Your task to perform on an android device: Show me popular videos on Youtube Image 0: 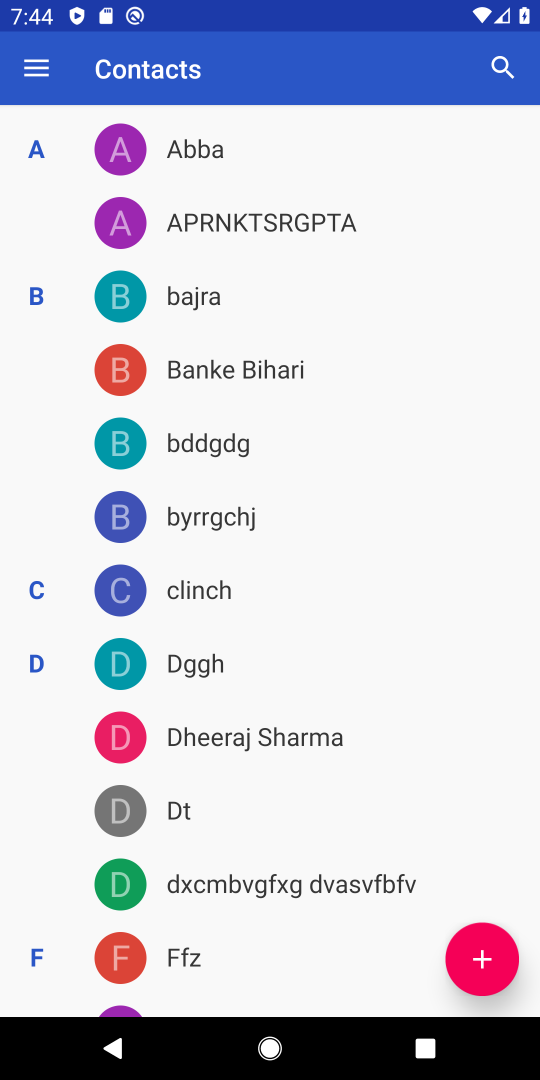
Step 0: press home button
Your task to perform on an android device: Show me popular videos on Youtube Image 1: 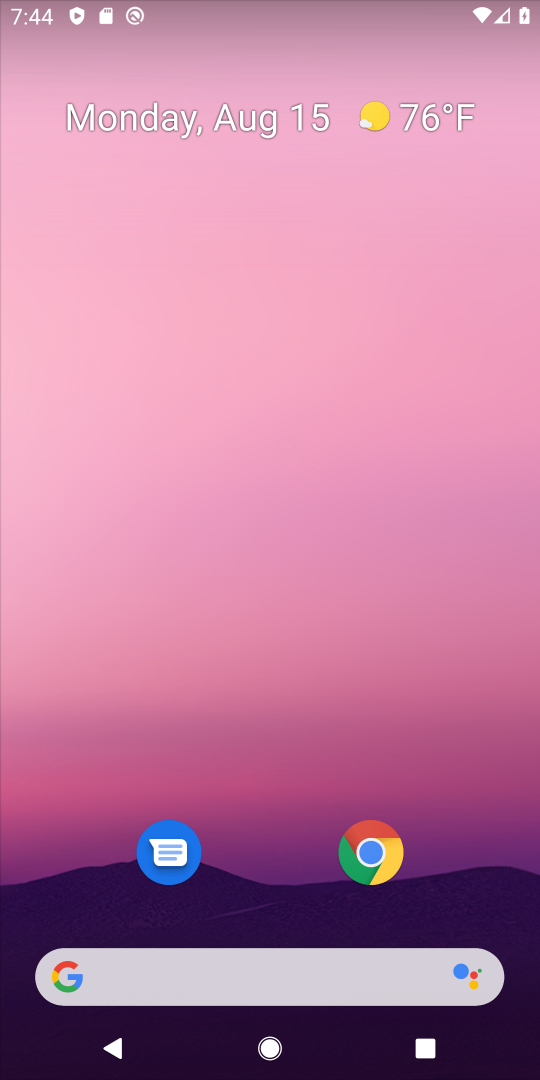
Step 1: drag from (220, 984) to (294, 140)
Your task to perform on an android device: Show me popular videos on Youtube Image 2: 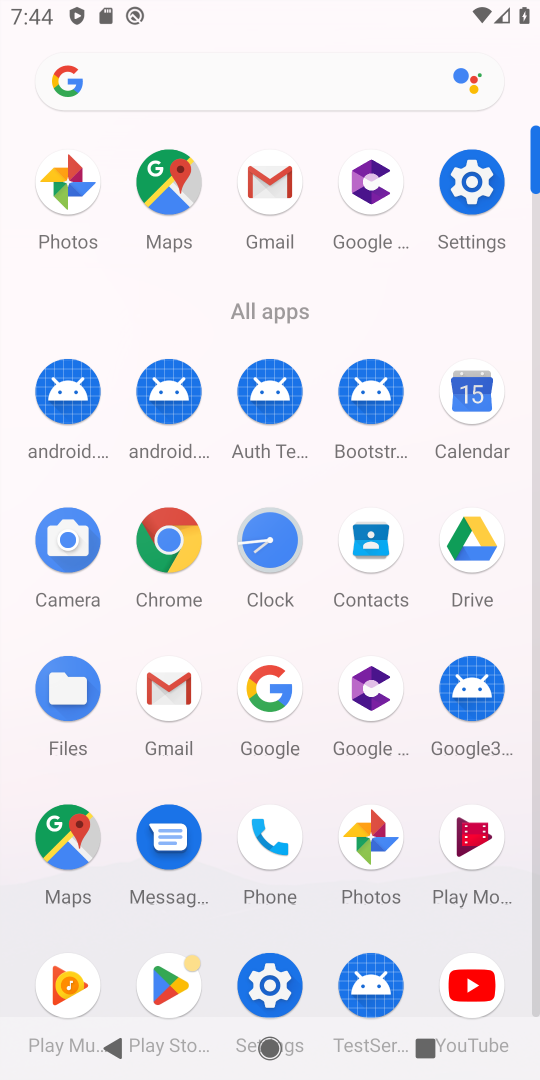
Step 2: click (467, 981)
Your task to perform on an android device: Show me popular videos on Youtube Image 3: 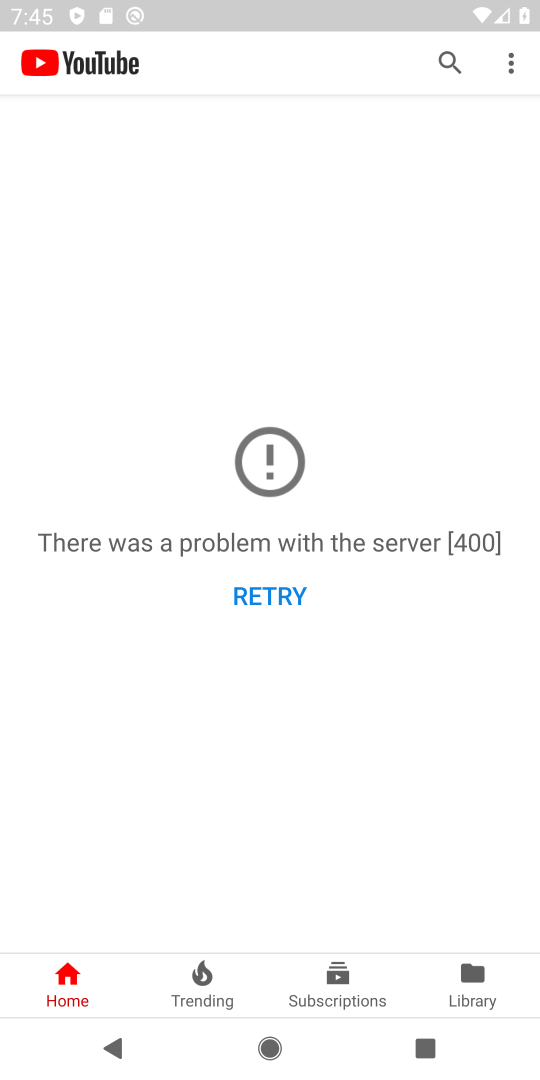
Step 3: click (447, 56)
Your task to perform on an android device: Show me popular videos on Youtube Image 4: 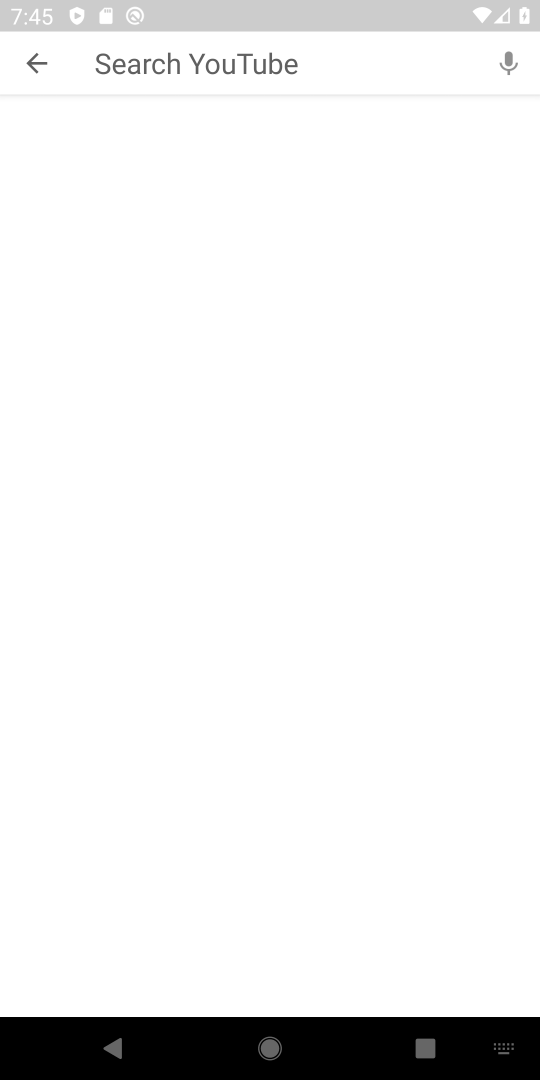
Step 4: type "popular video"
Your task to perform on an android device: Show me popular videos on Youtube Image 5: 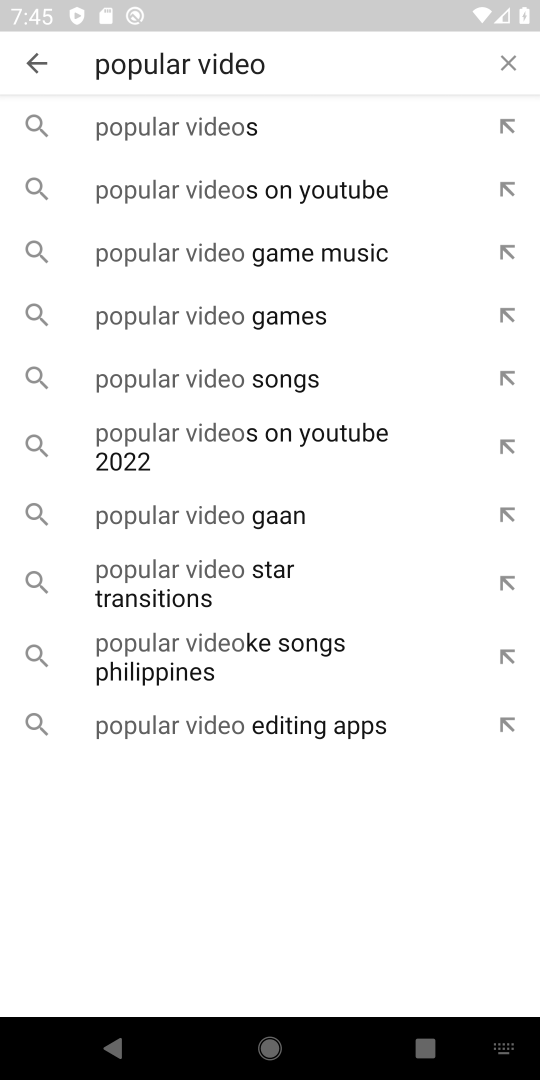
Step 5: click (303, 192)
Your task to perform on an android device: Show me popular videos on Youtube Image 6: 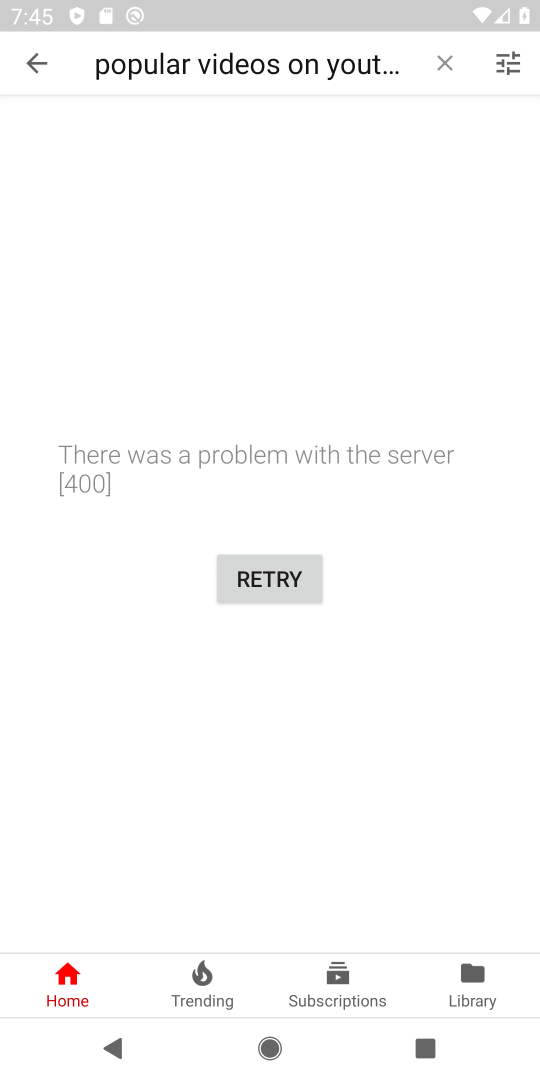
Step 6: task complete